Your task to perform on an android device: When is my next meeting? Image 0: 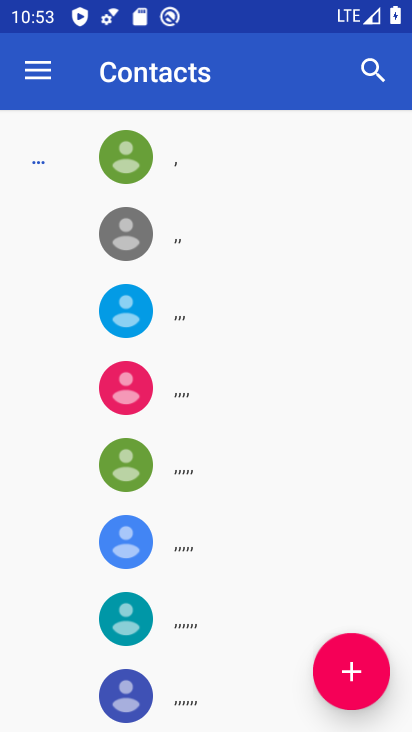
Step 0: press home button
Your task to perform on an android device: When is my next meeting? Image 1: 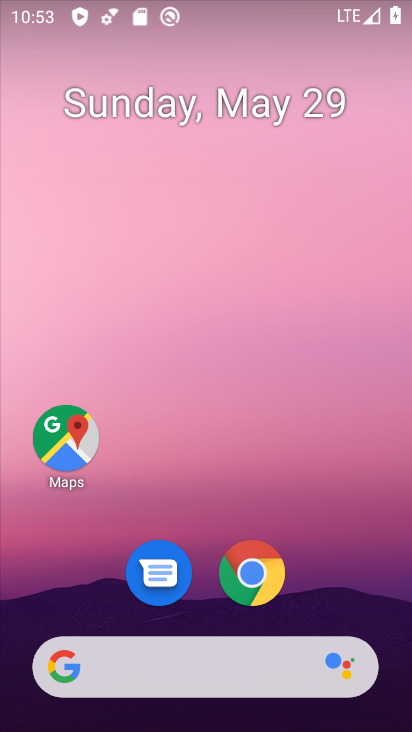
Step 1: drag from (353, 583) to (192, 57)
Your task to perform on an android device: When is my next meeting? Image 2: 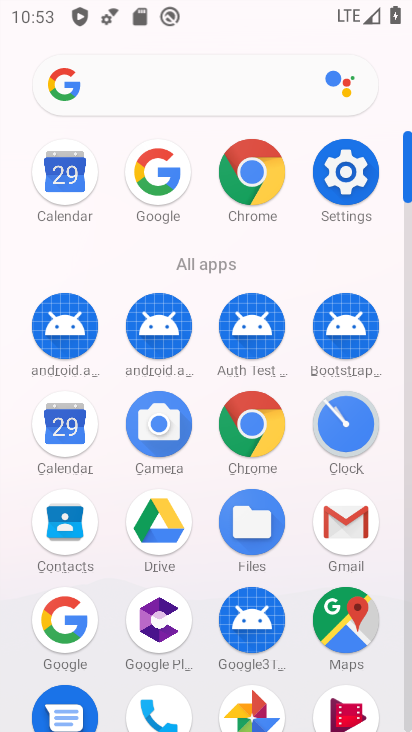
Step 2: click (74, 164)
Your task to perform on an android device: When is my next meeting? Image 3: 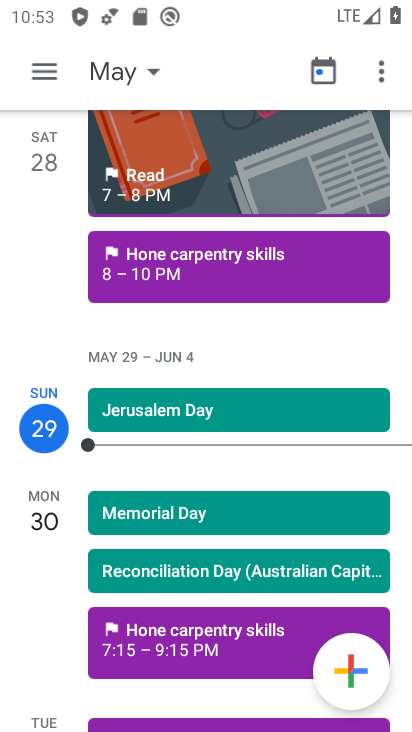
Step 3: task complete